Your task to perform on an android device: Open notification settings Image 0: 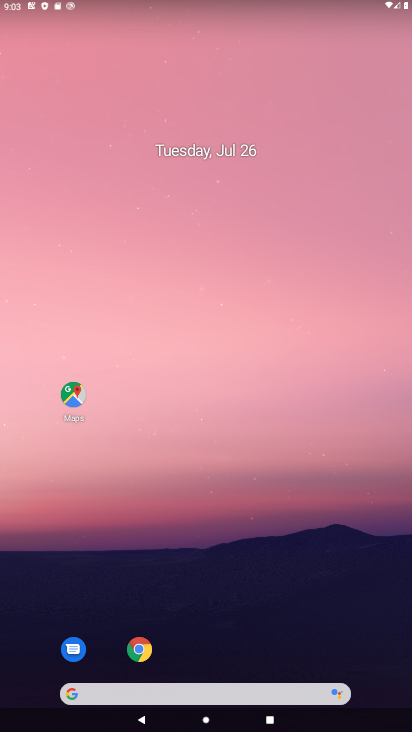
Step 0: drag from (217, 488) to (217, 346)
Your task to perform on an android device: Open notification settings Image 1: 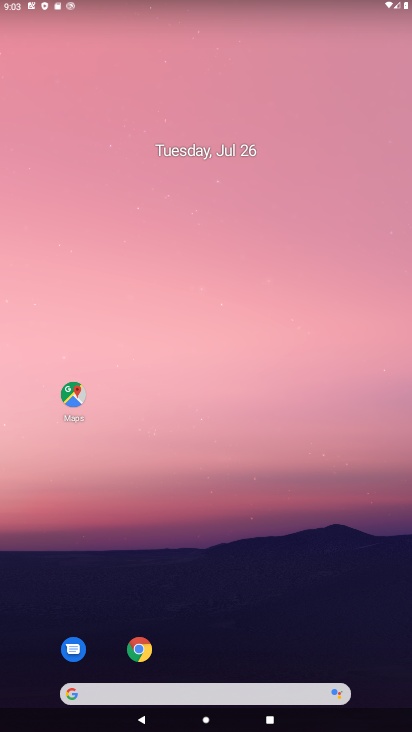
Step 1: drag from (194, 643) to (246, 116)
Your task to perform on an android device: Open notification settings Image 2: 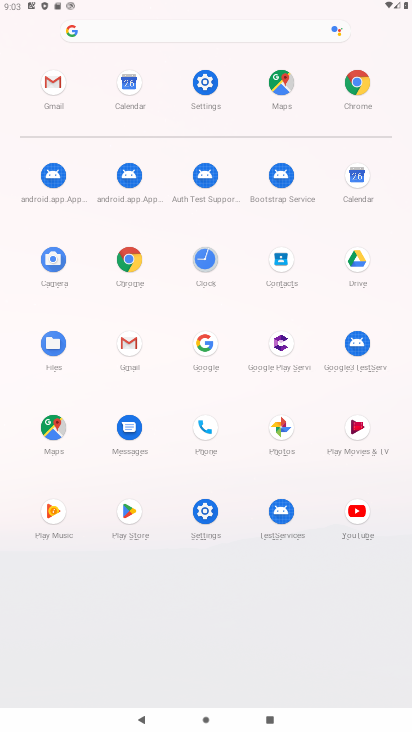
Step 2: click (198, 84)
Your task to perform on an android device: Open notification settings Image 3: 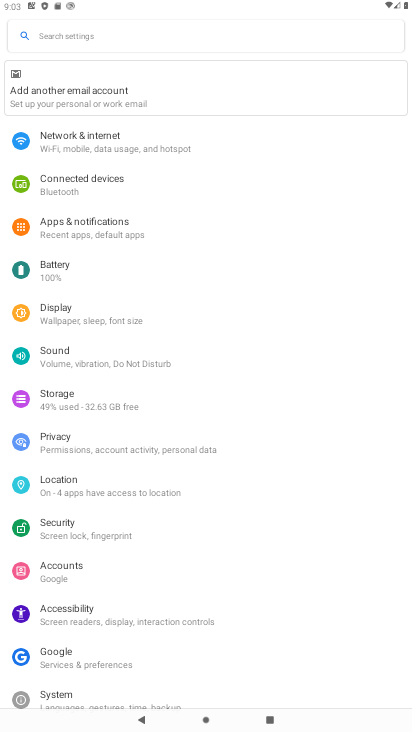
Step 3: click (118, 227)
Your task to perform on an android device: Open notification settings Image 4: 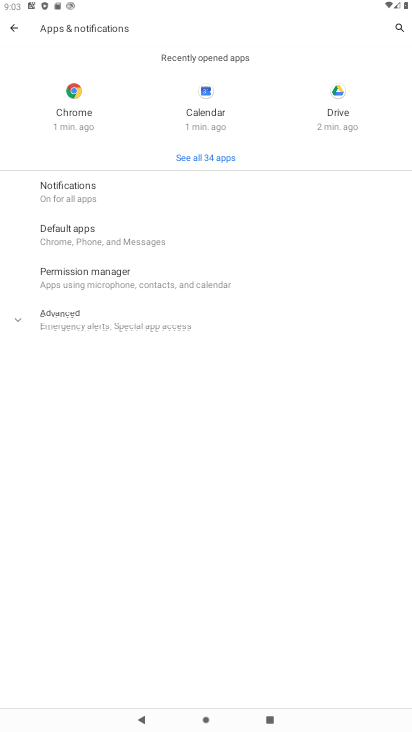
Step 4: click (136, 195)
Your task to perform on an android device: Open notification settings Image 5: 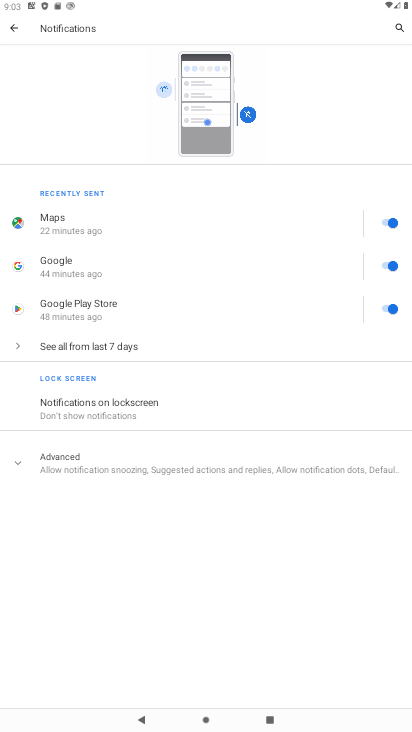
Step 5: drag from (188, 571) to (229, 156)
Your task to perform on an android device: Open notification settings Image 6: 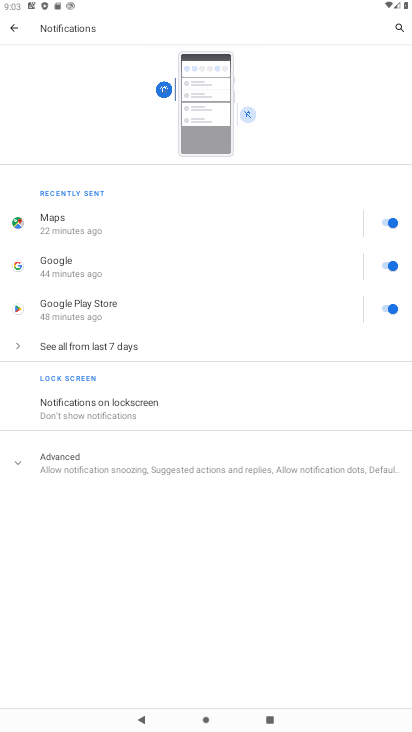
Step 6: click (106, 465)
Your task to perform on an android device: Open notification settings Image 7: 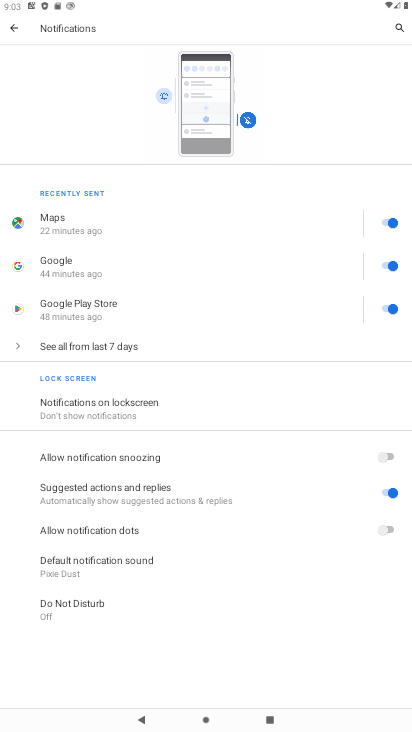
Step 7: task complete